Your task to perform on an android device: install app "VLC for Android" Image 0: 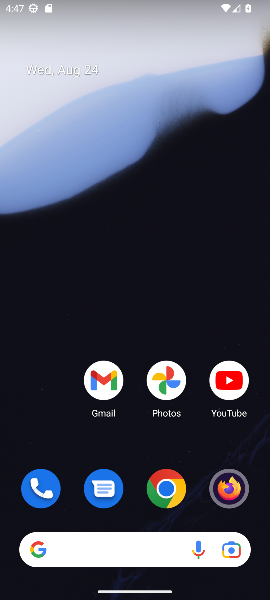
Step 0: drag from (136, 510) to (112, 65)
Your task to perform on an android device: install app "VLC for Android" Image 1: 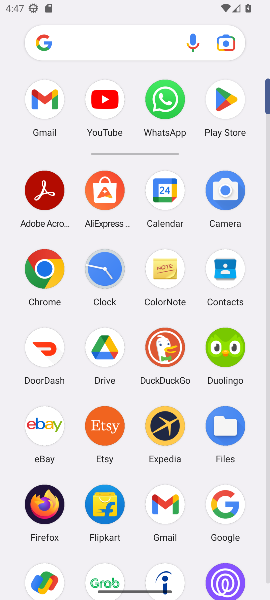
Step 1: drag from (136, 512) to (133, 185)
Your task to perform on an android device: install app "VLC for Android" Image 2: 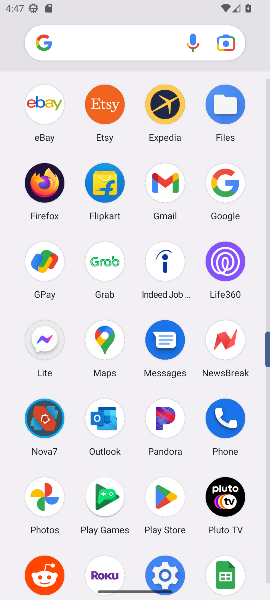
Step 2: drag from (133, 521) to (129, 254)
Your task to perform on an android device: install app "VLC for Android" Image 3: 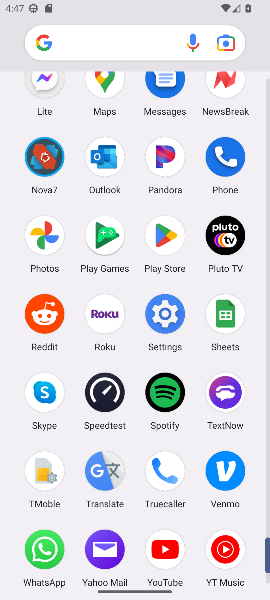
Step 3: drag from (150, 514) to (150, 253)
Your task to perform on an android device: install app "VLC for Android" Image 4: 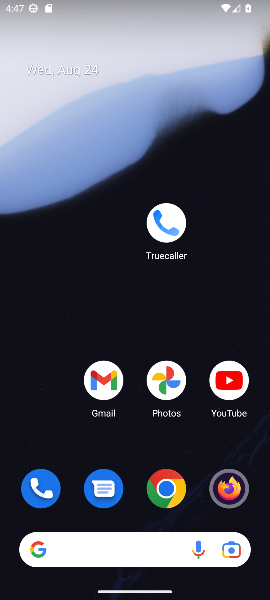
Step 4: drag from (198, 448) to (184, 187)
Your task to perform on an android device: install app "VLC for Android" Image 5: 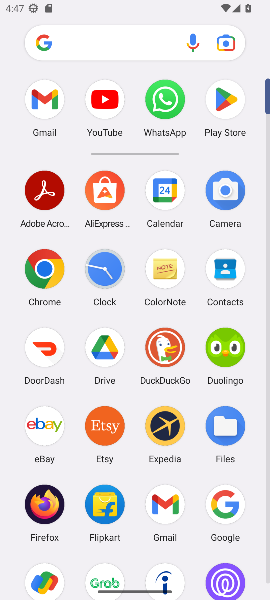
Step 5: click (219, 131)
Your task to perform on an android device: install app "VLC for Android" Image 6: 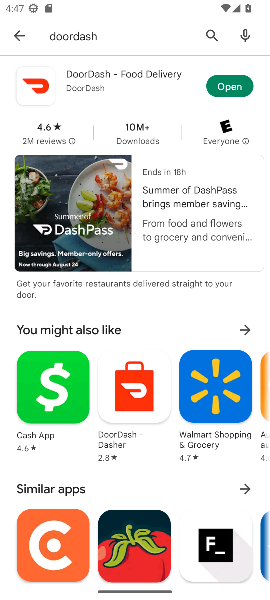
Step 6: click (212, 42)
Your task to perform on an android device: install app "VLC for Android" Image 7: 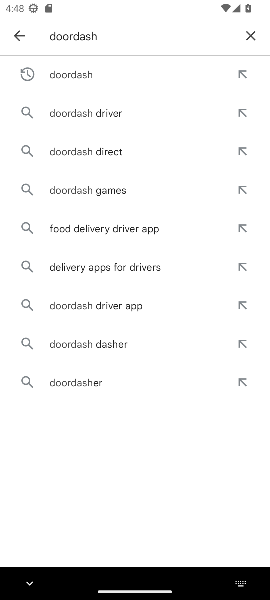
Step 7: click (66, 72)
Your task to perform on an android device: install app "VLC for Android" Image 8: 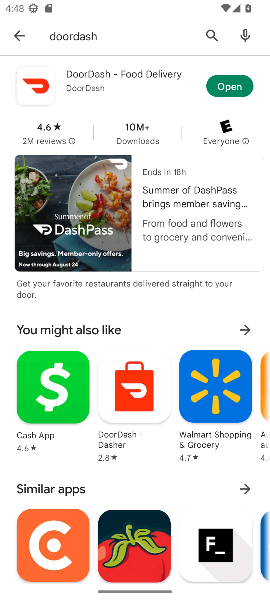
Step 8: click (216, 83)
Your task to perform on an android device: install app "VLC for Android" Image 9: 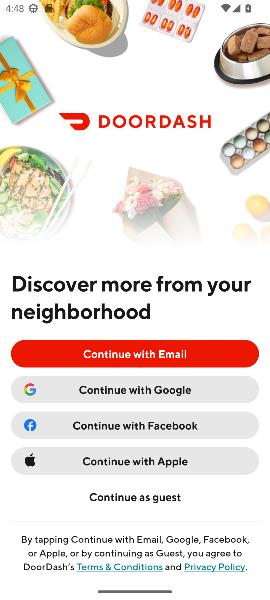
Step 9: press home button
Your task to perform on an android device: install app "VLC for Android" Image 10: 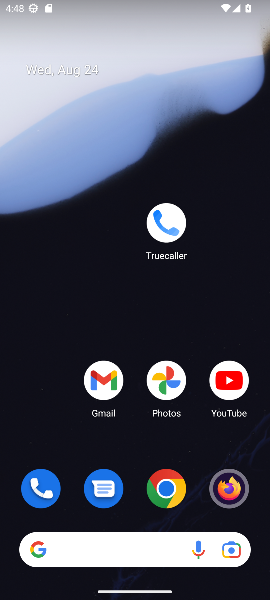
Step 10: drag from (127, 522) to (140, 318)
Your task to perform on an android device: install app "VLC for Android" Image 11: 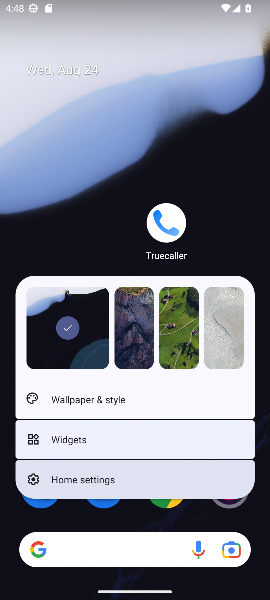
Step 11: click (96, 257)
Your task to perform on an android device: install app "VLC for Android" Image 12: 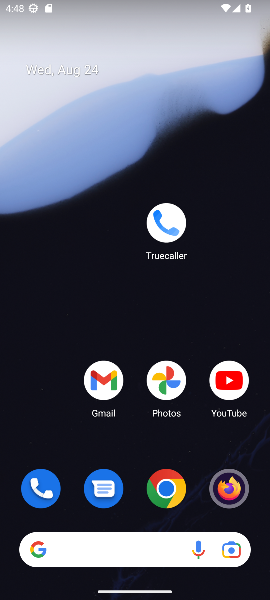
Step 12: drag from (135, 514) to (147, 0)
Your task to perform on an android device: install app "VLC for Android" Image 13: 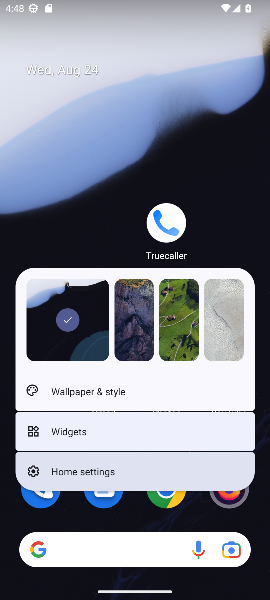
Step 13: click (163, 93)
Your task to perform on an android device: install app "VLC for Android" Image 14: 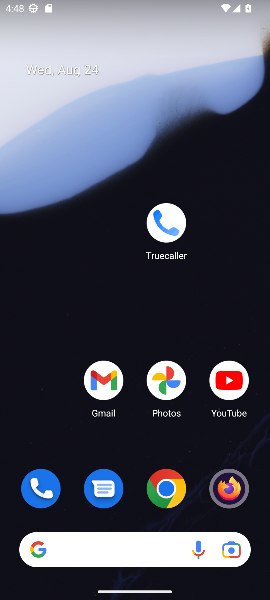
Step 14: drag from (134, 519) to (141, 110)
Your task to perform on an android device: install app "VLC for Android" Image 15: 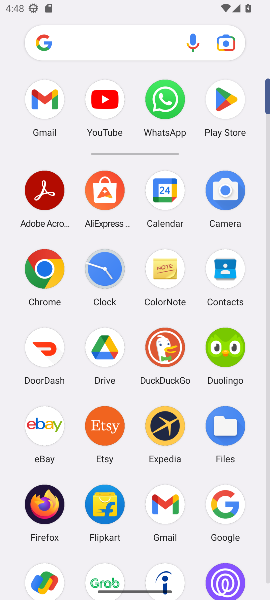
Step 15: click (235, 106)
Your task to perform on an android device: install app "VLC for Android" Image 16: 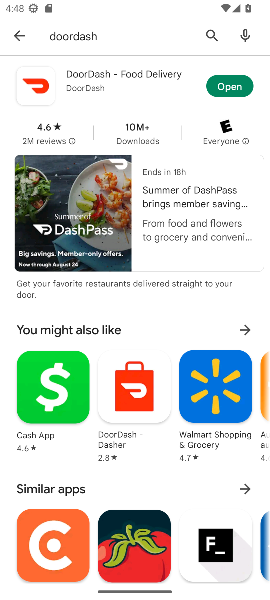
Step 16: click (208, 44)
Your task to perform on an android device: install app "VLC for Android" Image 17: 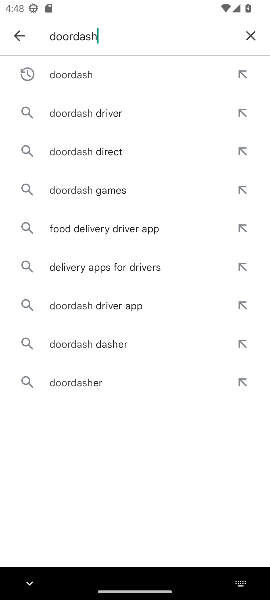
Step 17: click (238, 34)
Your task to perform on an android device: install app "VLC for Android" Image 18: 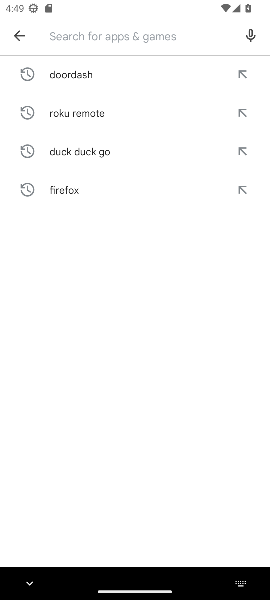
Step 18: type "vlc "
Your task to perform on an android device: install app "VLC for Android" Image 19: 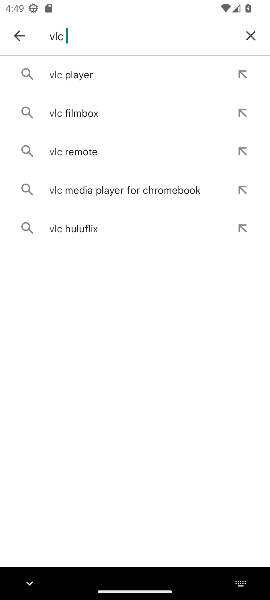
Step 19: click (98, 74)
Your task to perform on an android device: install app "VLC for Android" Image 20: 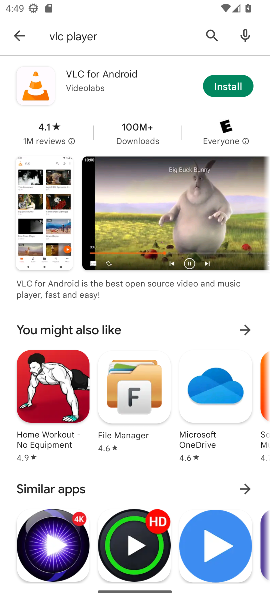
Step 20: click (235, 94)
Your task to perform on an android device: install app "VLC for Android" Image 21: 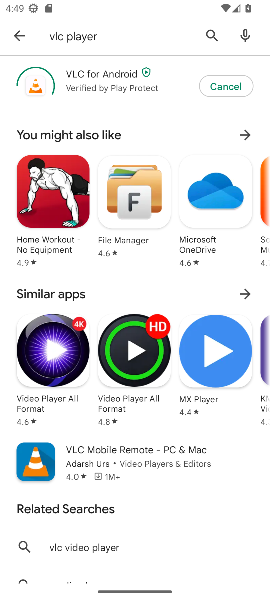
Step 21: task complete